Your task to perform on an android device: Clear the cart on target.com. Add "acer nitro" to the cart on target.com Image 0: 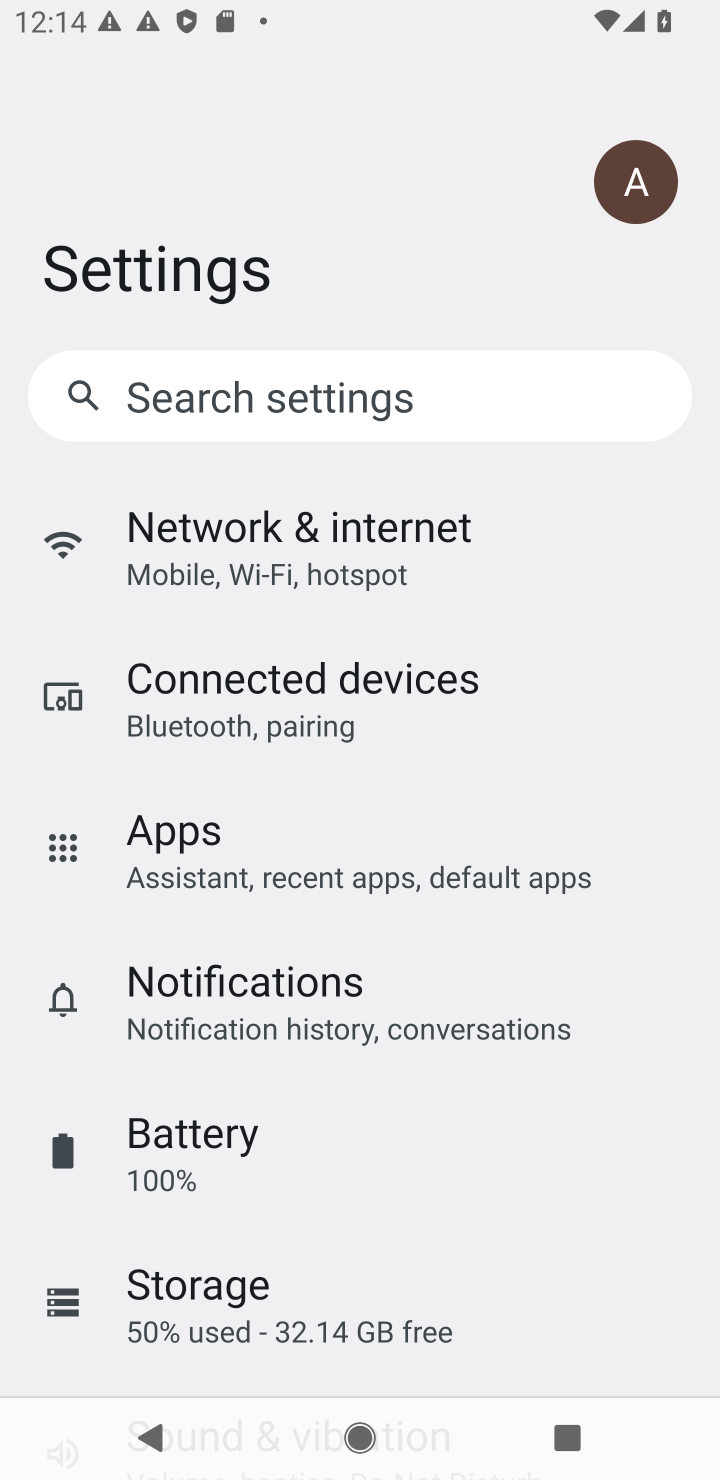
Step 0: press home button
Your task to perform on an android device: Clear the cart on target.com. Add "acer nitro" to the cart on target.com Image 1: 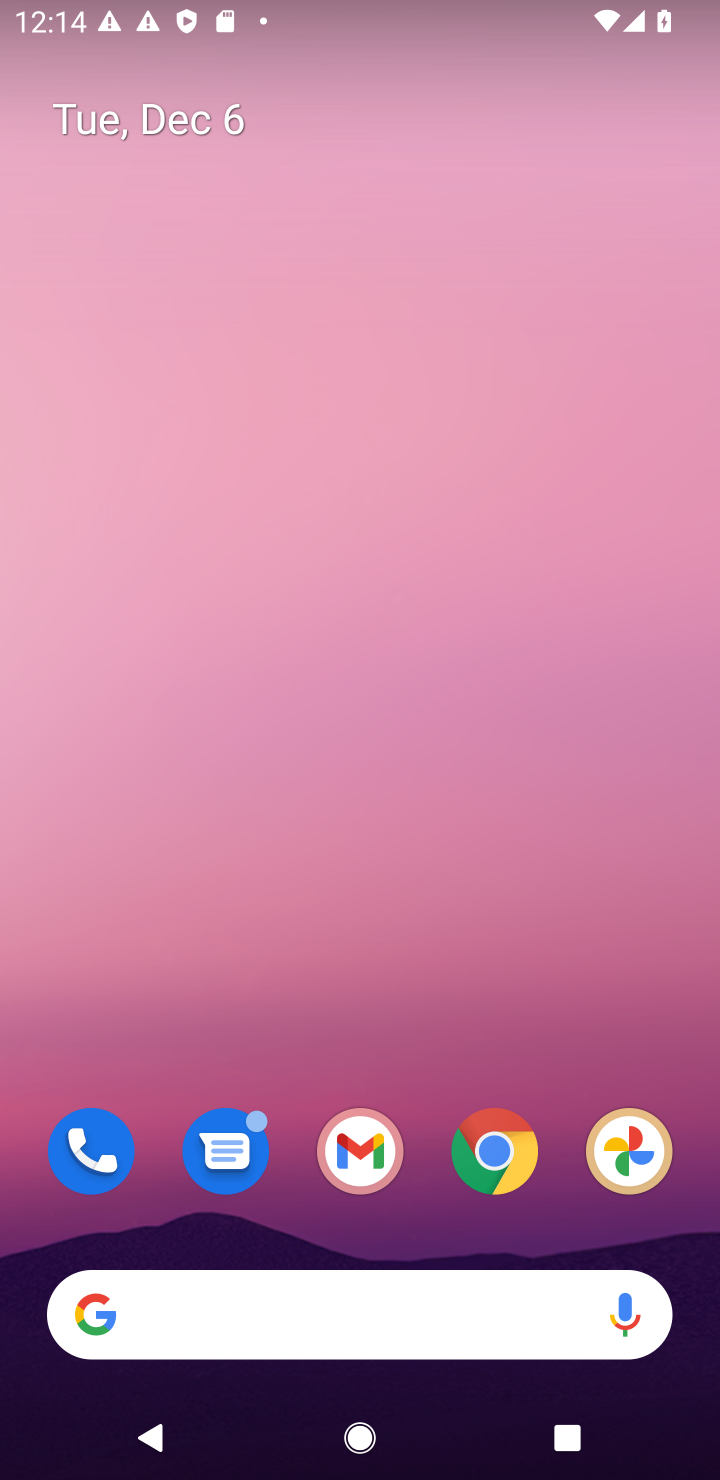
Step 1: click (494, 1168)
Your task to perform on an android device: Clear the cart on target.com. Add "acer nitro" to the cart on target.com Image 2: 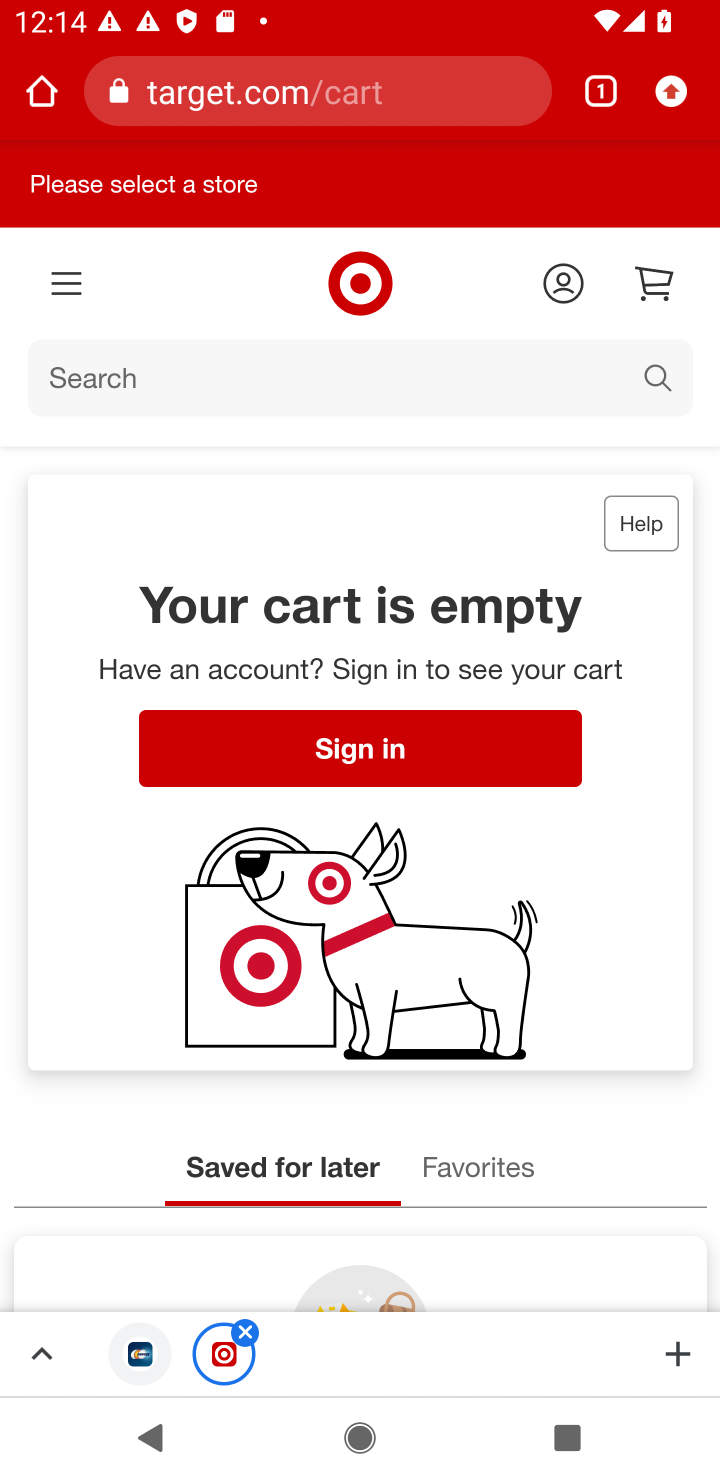
Step 2: click (138, 378)
Your task to perform on an android device: Clear the cart on target.com. Add "acer nitro" to the cart on target.com Image 3: 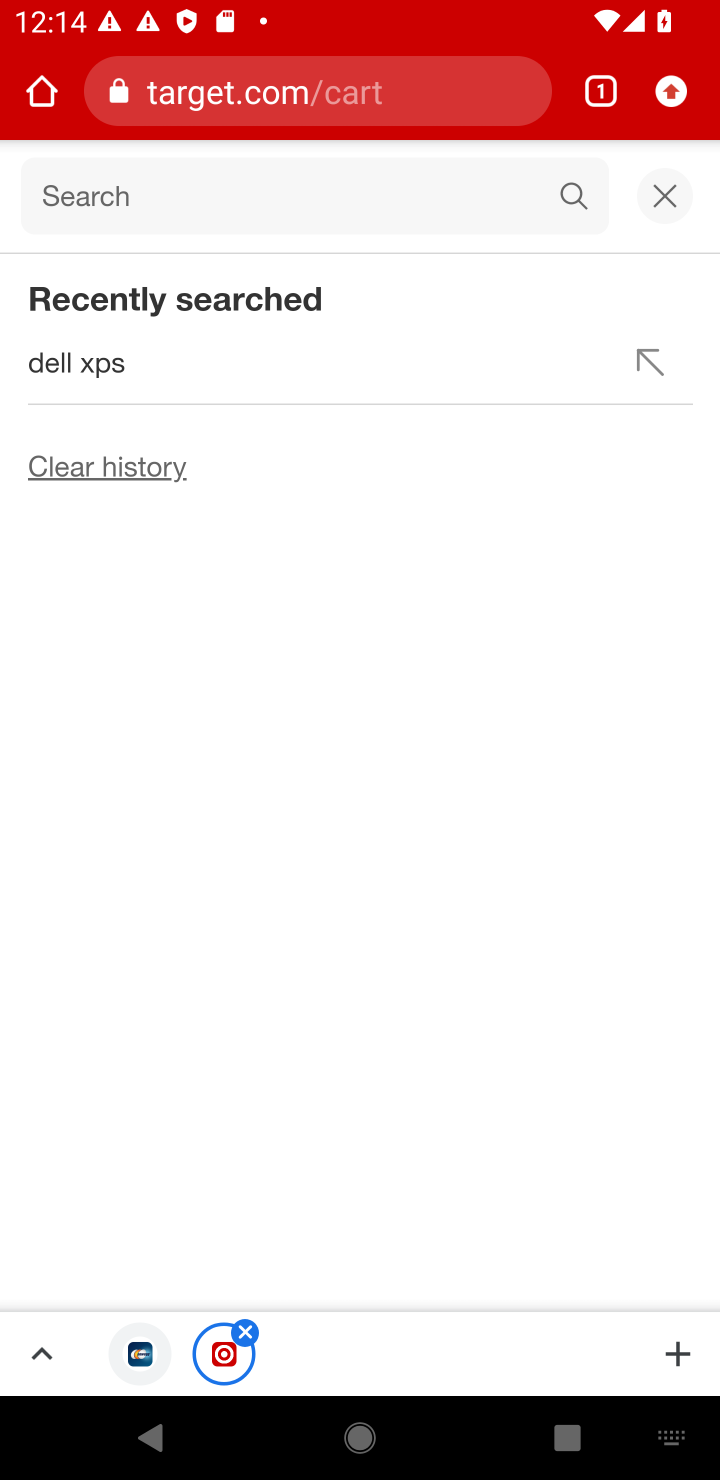
Step 3: type "acer nitro"
Your task to perform on an android device: Clear the cart on target.com. Add "acer nitro" to the cart on target.com Image 4: 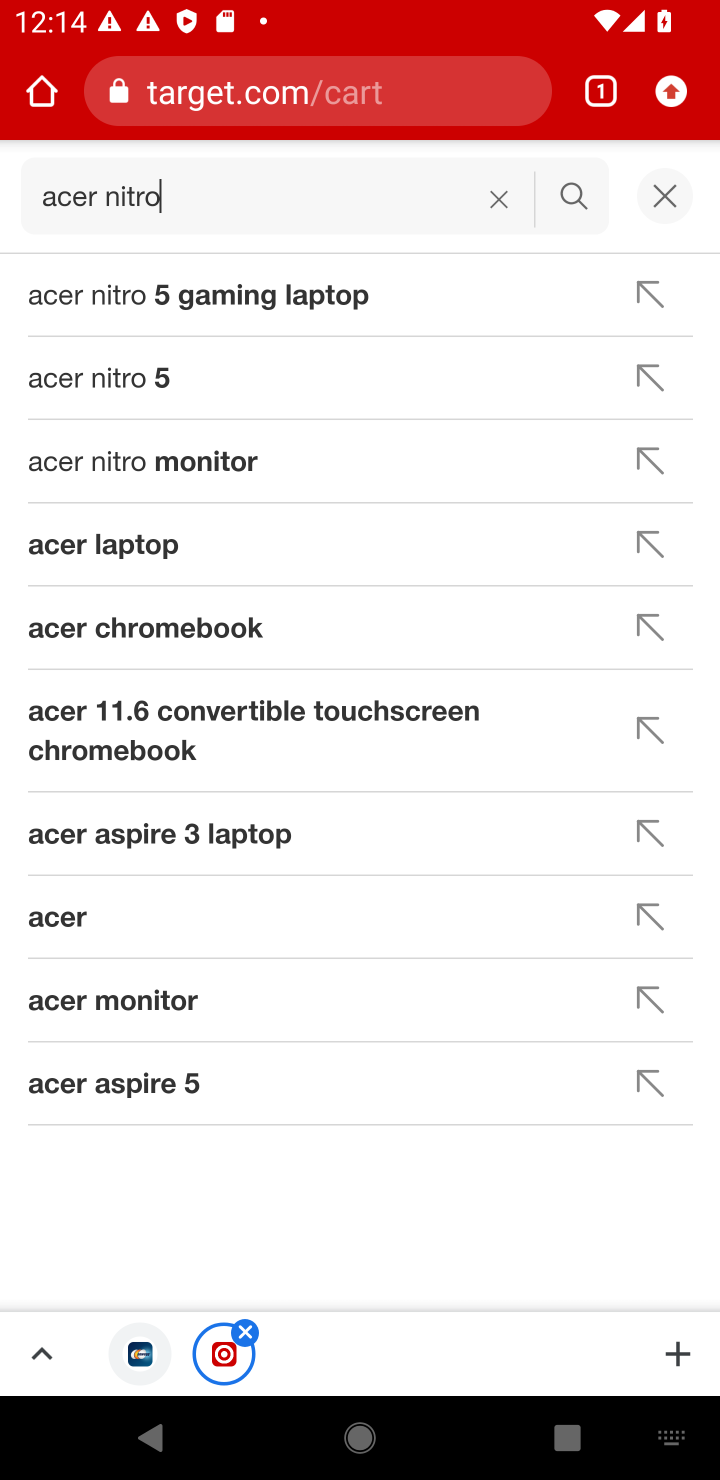
Step 4: click (579, 202)
Your task to perform on an android device: Clear the cart on target.com. Add "acer nitro" to the cart on target.com Image 5: 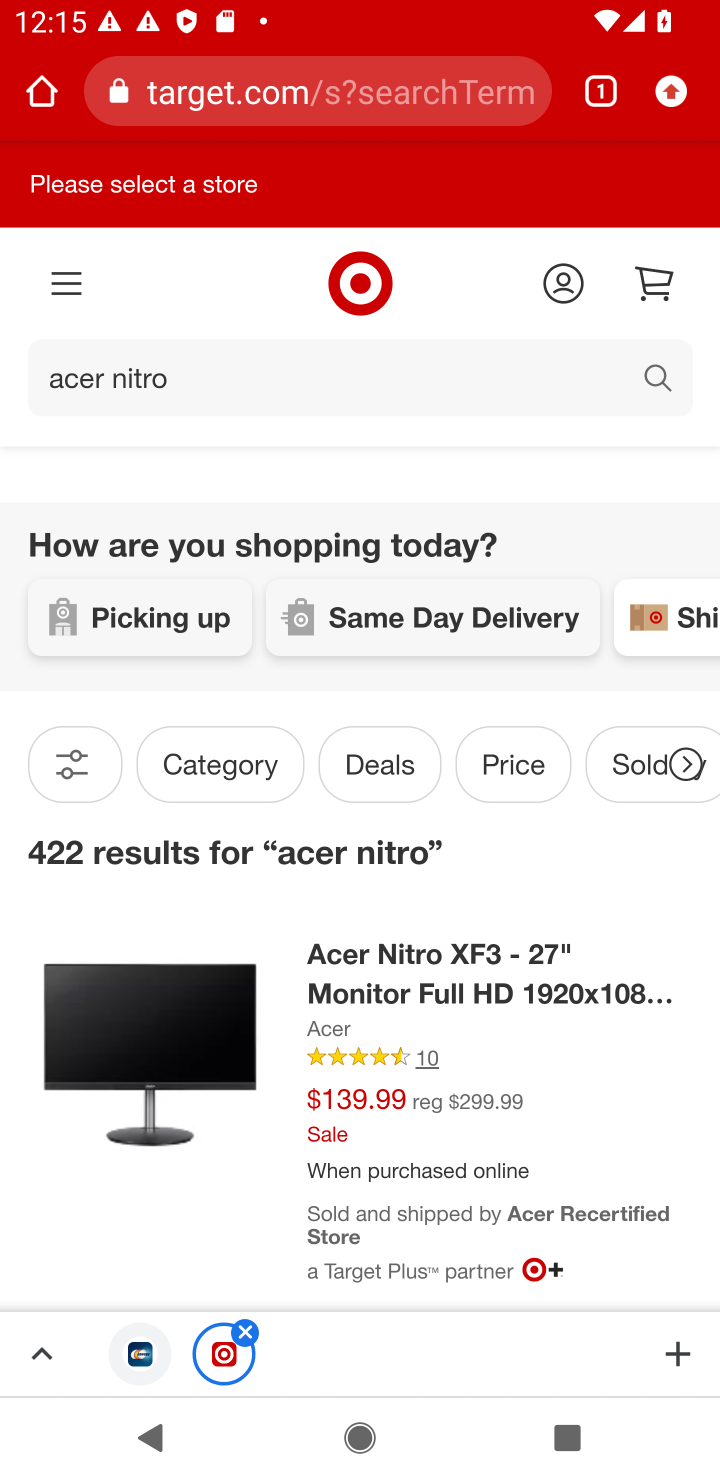
Step 5: drag from (294, 986) to (280, 462)
Your task to perform on an android device: Clear the cart on target.com. Add "acer nitro" to the cart on target.com Image 6: 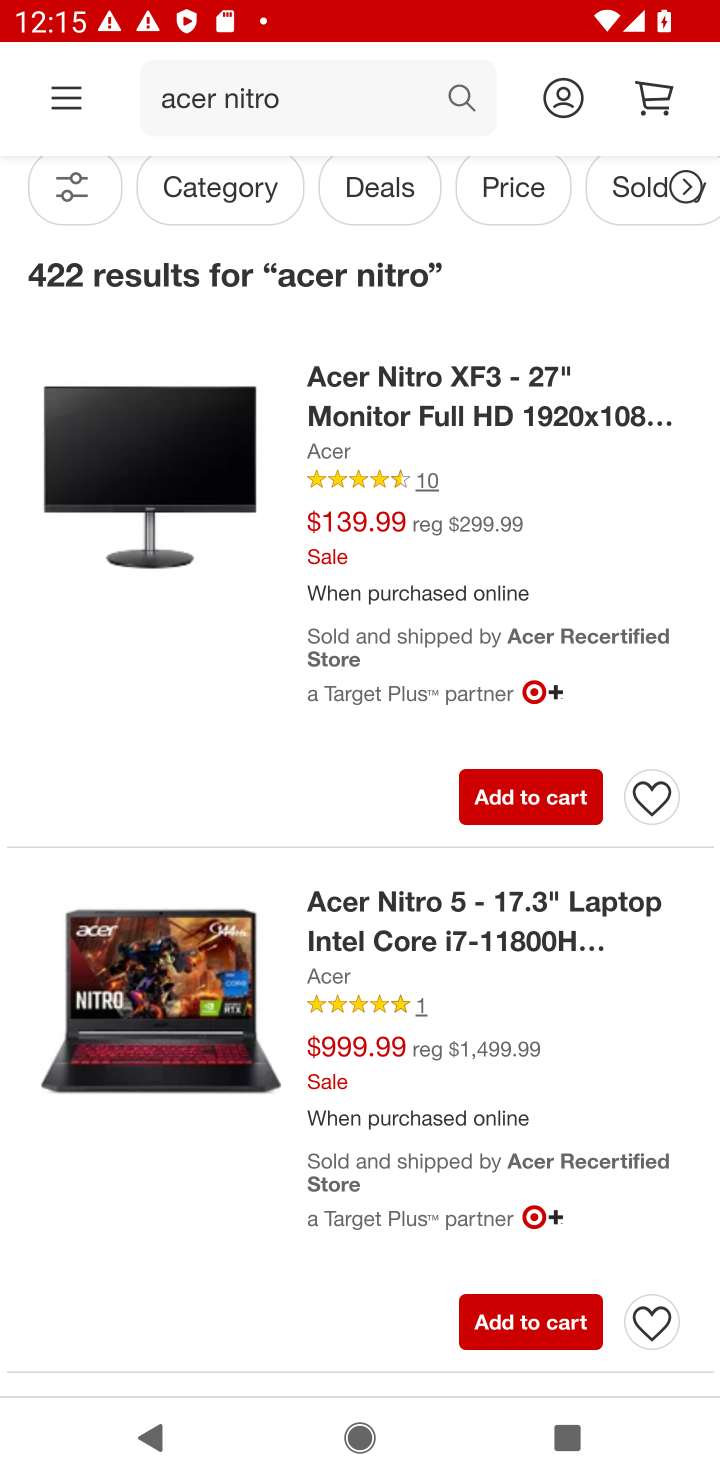
Step 6: click (515, 809)
Your task to perform on an android device: Clear the cart on target.com. Add "acer nitro" to the cart on target.com Image 7: 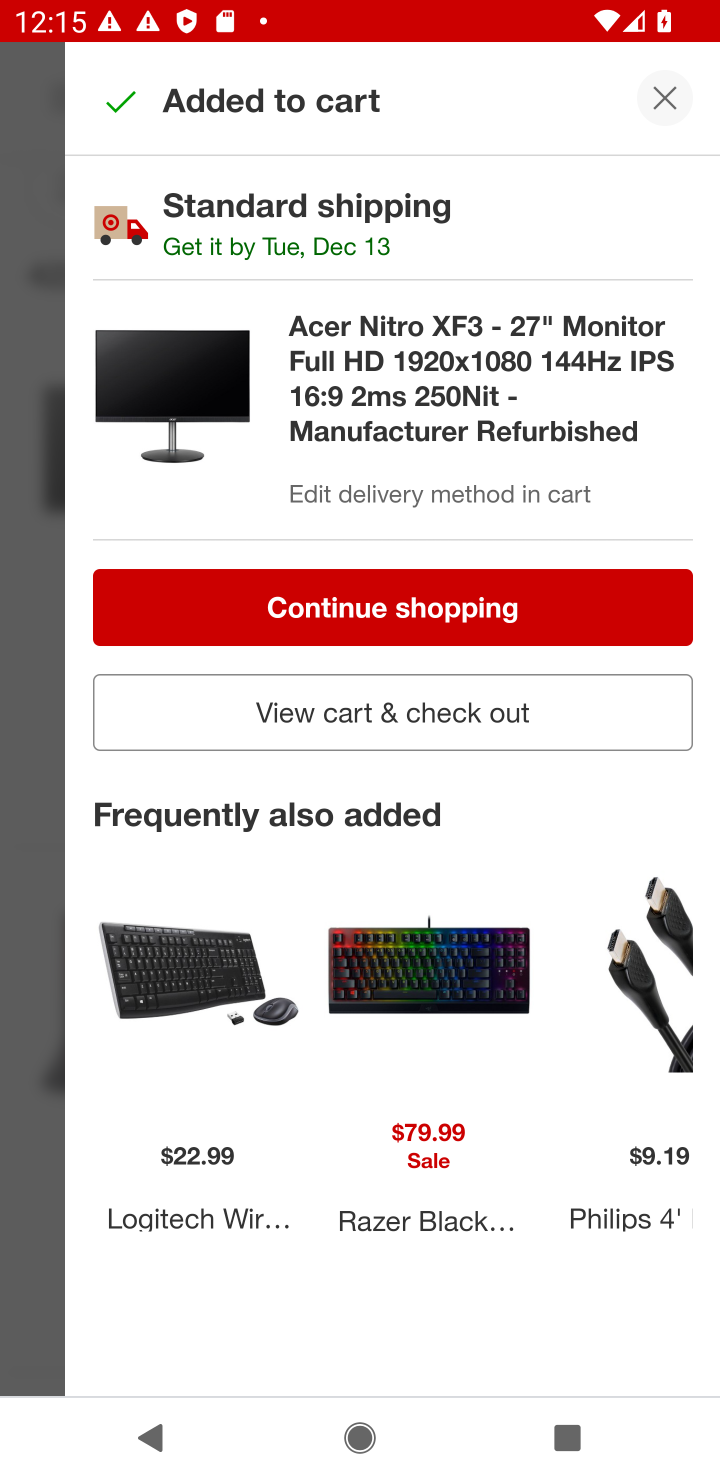
Step 7: task complete